Your task to perform on an android device: Search for the best books on Goodreads Image 0: 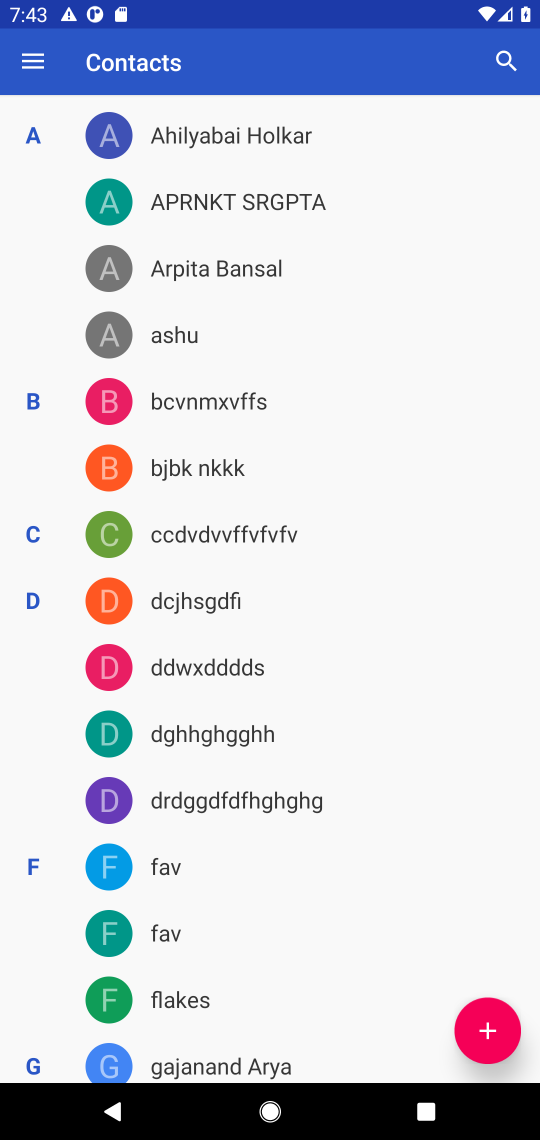
Step 0: click (312, 131)
Your task to perform on an android device: Search for the best books on Goodreads Image 1: 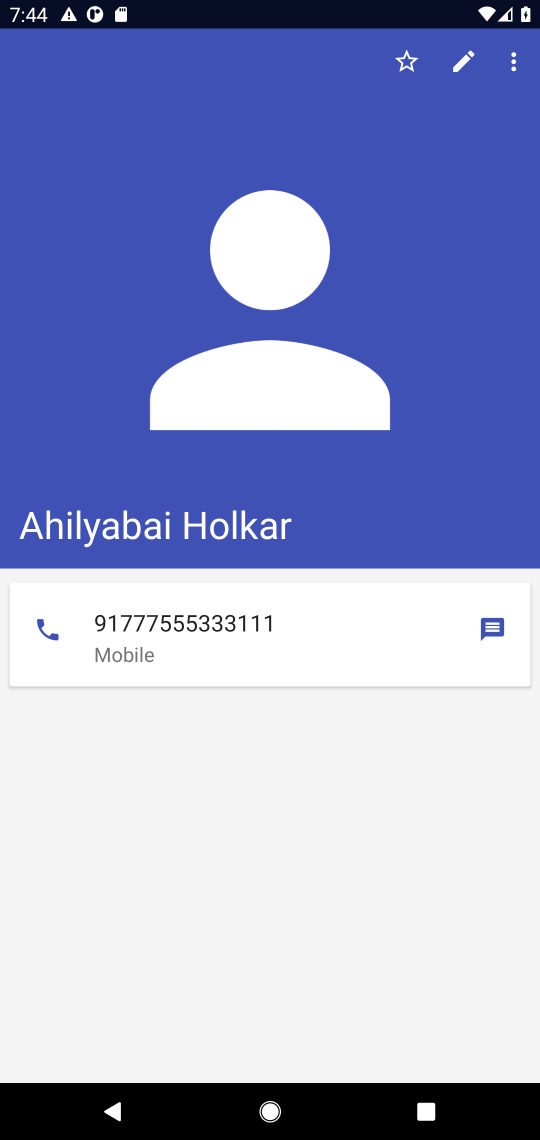
Step 1: task complete